Your task to perform on an android device: toggle notifications settings in the gmail app Image 0: 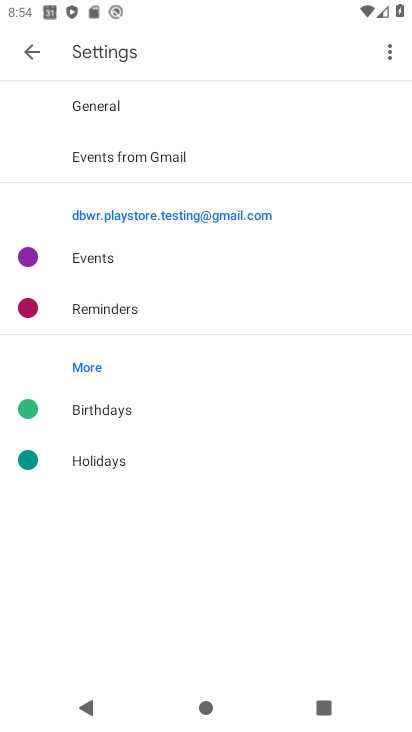
Step 0: press home button
Your task to perform on an android device: toggle notifications settings in the gmail app Image 1: 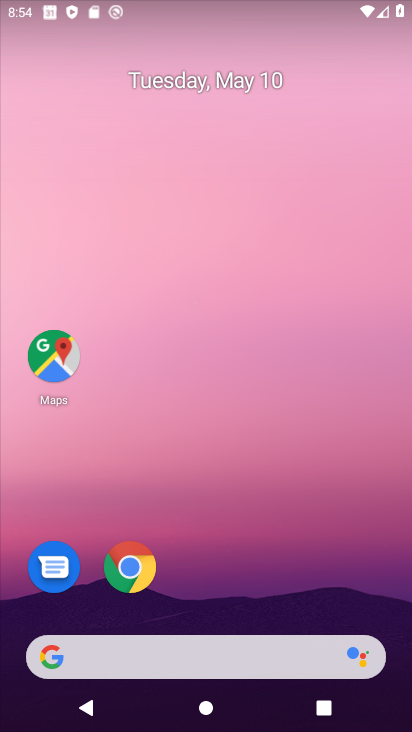
Step 1: drag from (304, 510) to (287, 224)
Your task to perform on an android device: toggle notifications settings in the gmail app Image 2: 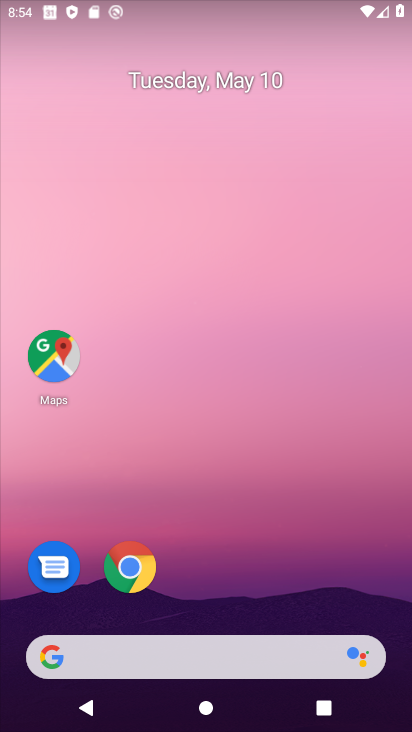
Step 2: drag from (335, 546) to (407, 57)
Your task to perform on an android device: toggle notifications settings in the gmail app Image 3: 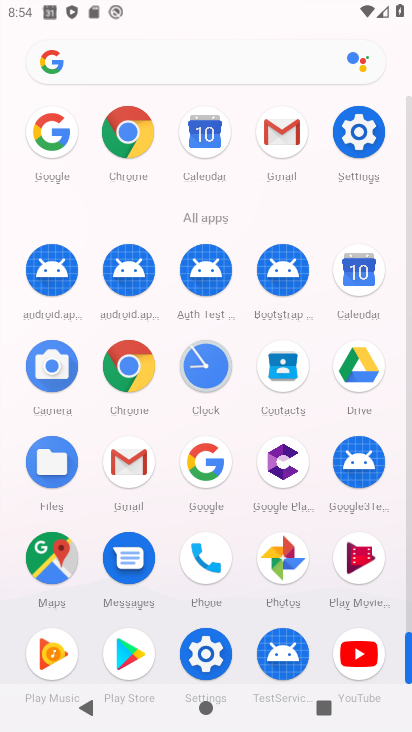
Step 3: click (269, 147)
Your task to perform on an android device: toggle notifications settings in the gmail app Image 4: 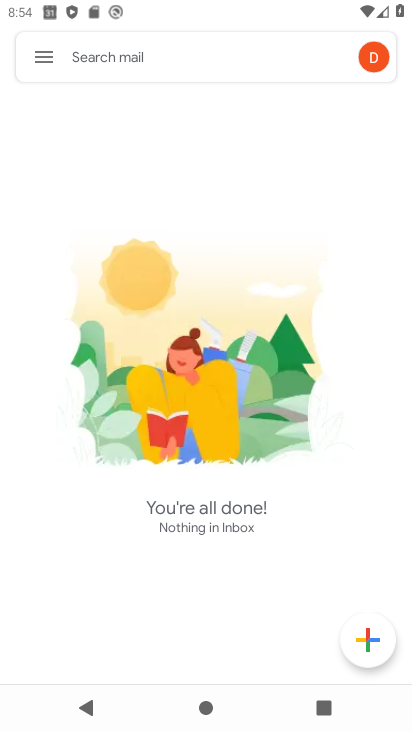
Step 4: click (54, 61)
Your task to perform on an android device: toggle notifications settings in the gmail app Image 5: 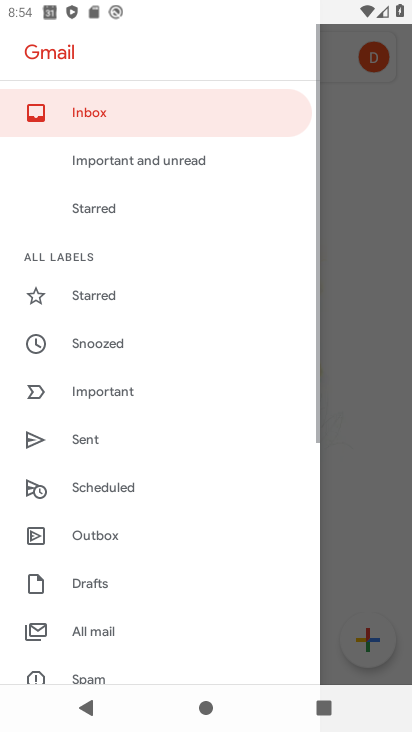
Step 5: drag from (189, 637) to (207, 248)
Your task to perform on an android device: toggle notifications settings in the gmail app Image 6: 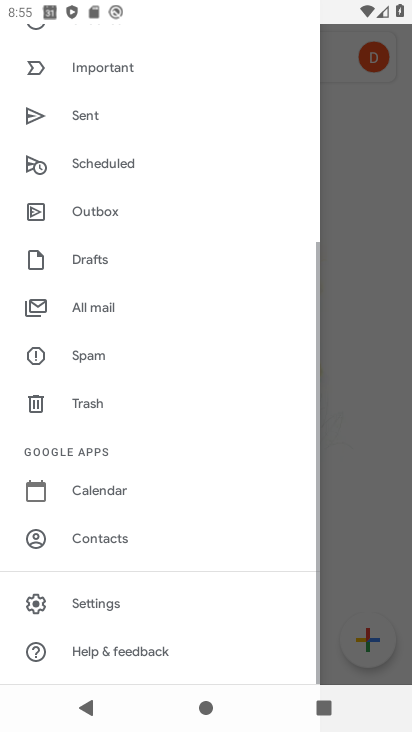
Step 6: click (103, 623)
Your task to perform on an android device: toggle notifications settings in the gmail app Image 7: 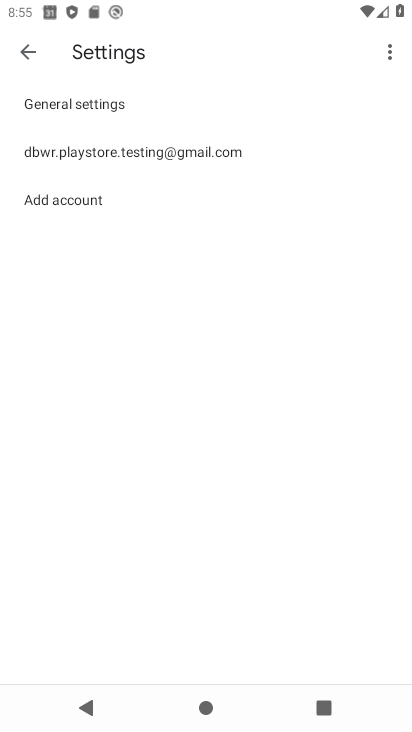
Step 7: click (168, 153)
Your task to perform on an android device: toggle notifications settings in the gmail app Image 8: 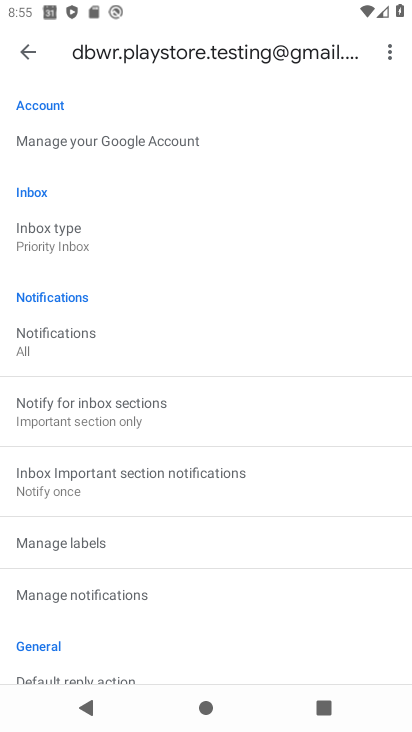
Step 8: click (106, 348)
Your task to perform on an android device: toggle notifications settings in the gmail app Image 9: 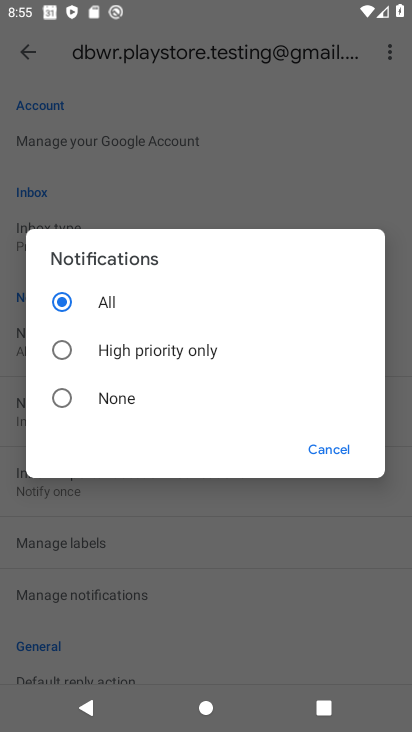
Step 9: click (100, 353)
Your task to perform on an android device: toggle notifications settings in the gmail app Image 10: 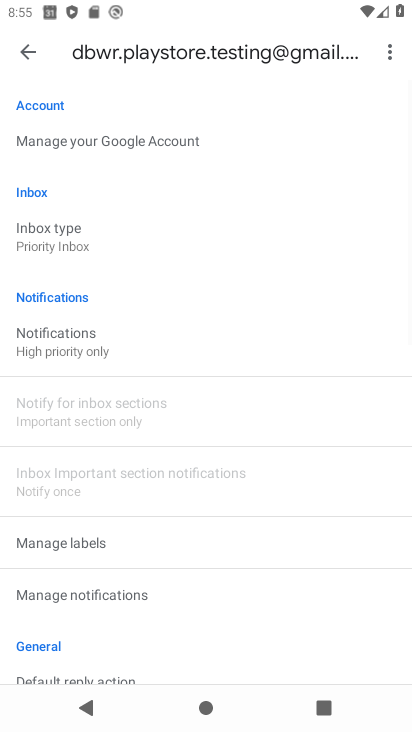
Step 10: task complete